Your task to perform on an android device: open sync settings in chrome Image 0: 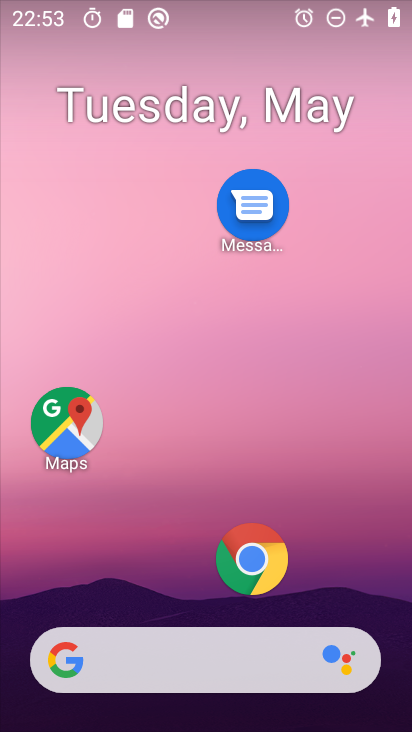
Step 0: click (250, 574)
Your task to perform on an android device: open sync settings in chrome Image 1: 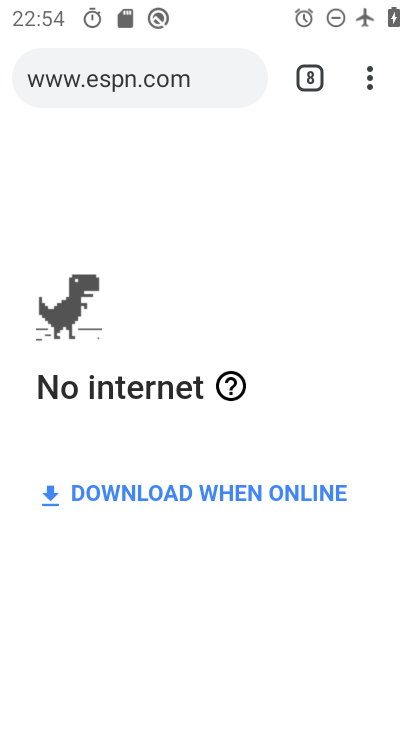
Step 1: press home button
Your task to perform on an android device: open sync settings in chrome Image 2: 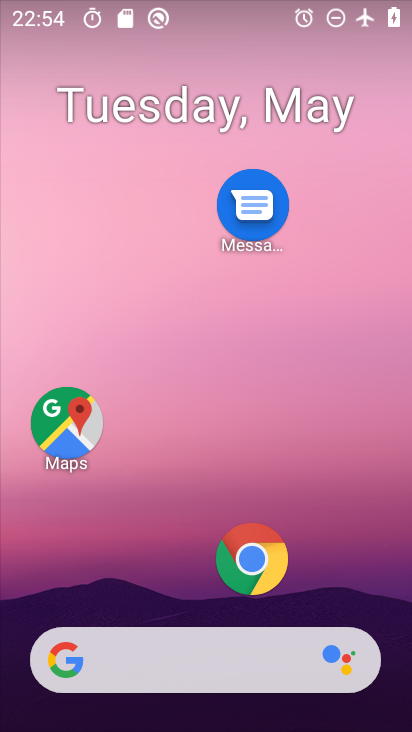
Step 2: click (248, 565)
Your task to perform on an android device: open sync settings in chrome Image 3: 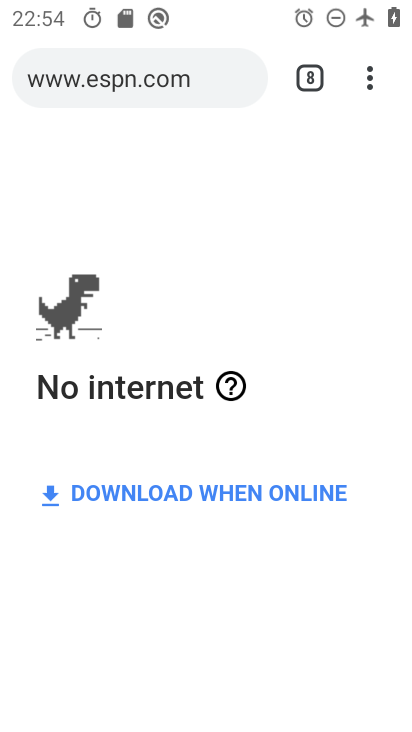
Step 3: drag from (372, 75) to (101, 632)
Your task to perform on an android device: open sync settings in chrome Image 4: 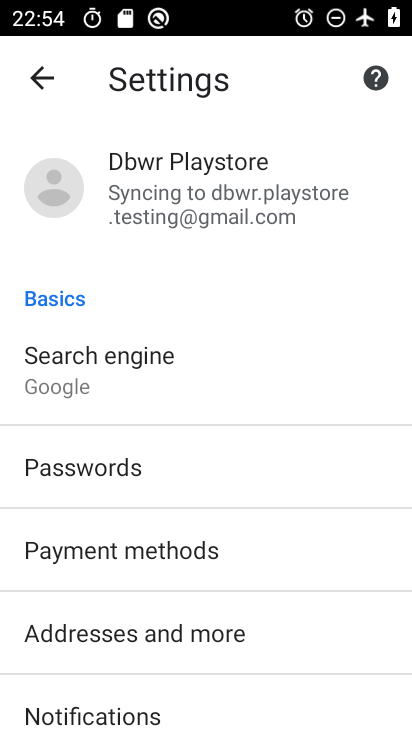
Step 4: click (172, 216)
Your task to perform on an android device: open sync settings in chrome Image 5: 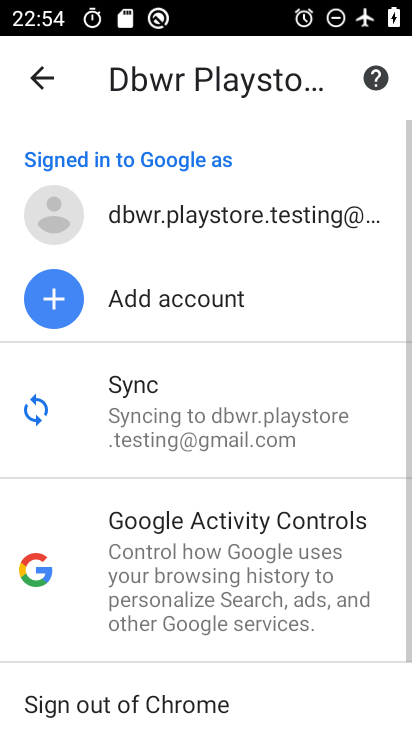
Step 5: click (182, 444)
Your task to perform on an android device: open sync settings in chrome Image 6: 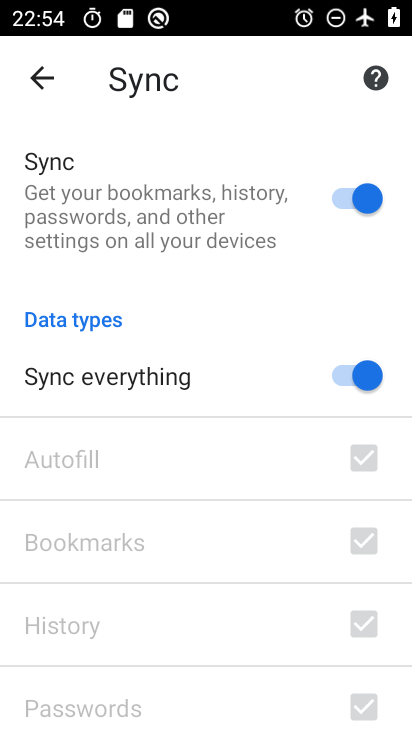
Step 6: task complete